Your task to perform on an android device: check google app version Image 0: 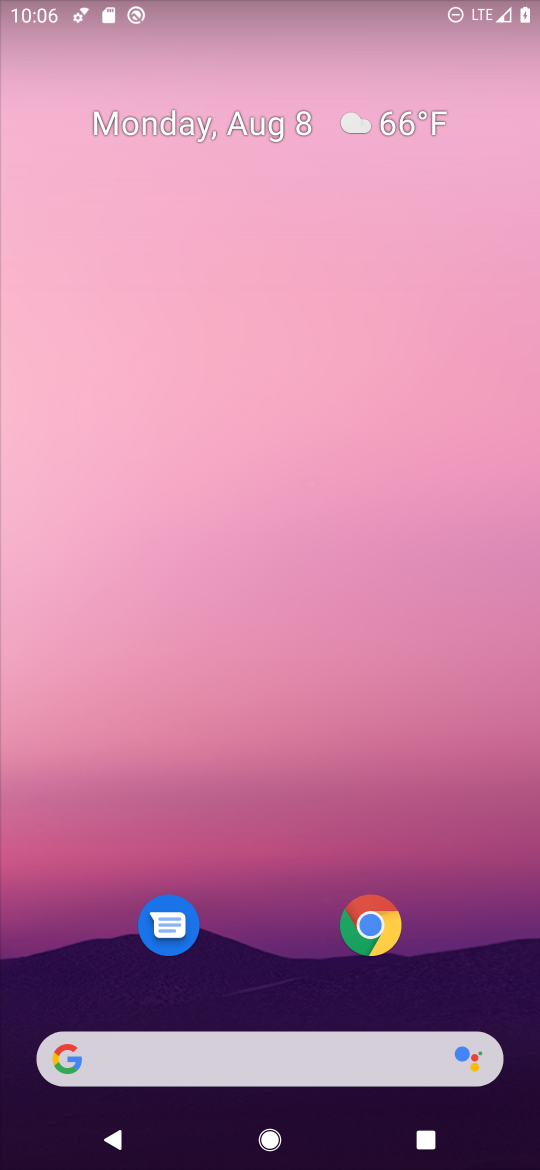
Step 0: drag from (264, 949) to (353, 116)
Your task to perform on an android device: check google app version Image 1: 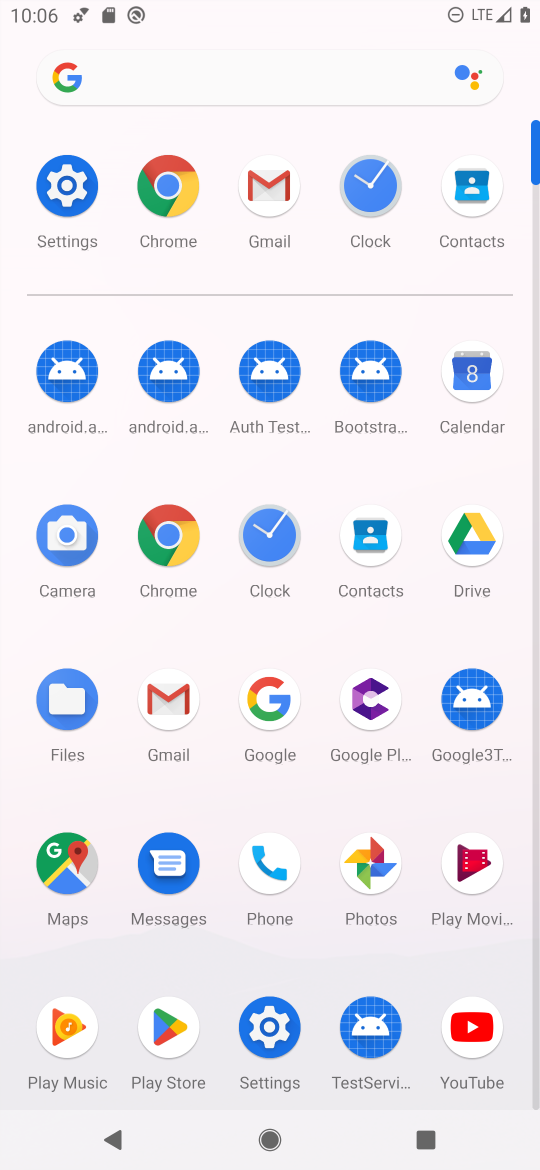
Step 1: click (271, 700)
Your task to perform on an android device: check google app version Image 2: 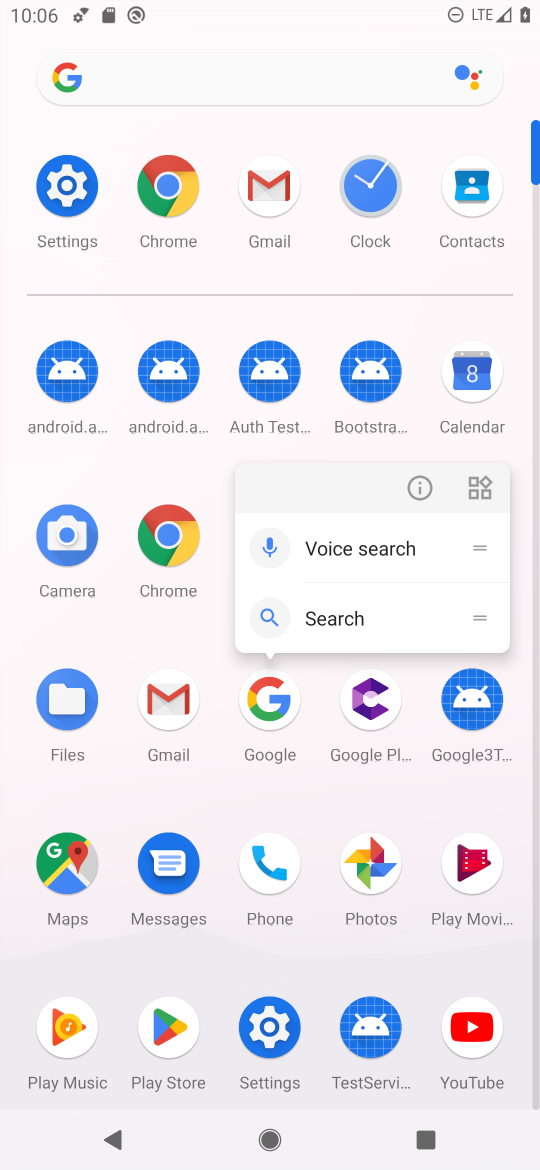
Step 2: click (405, 476)
Your task to perform on an android device: check google app version Image 3: 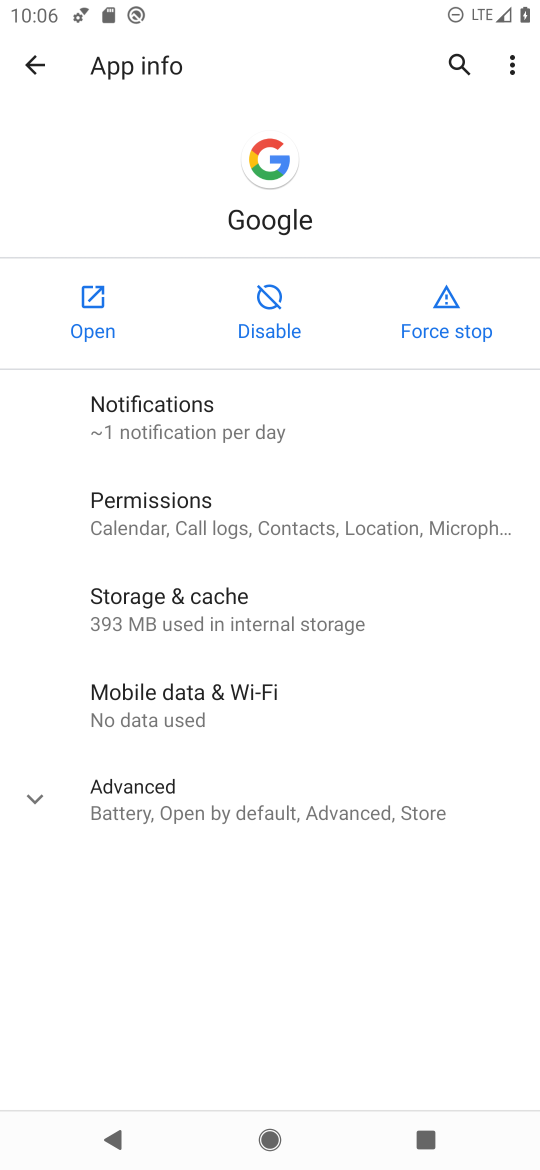
Step 3: click (233, 799)
Your task to perform on an android device: check google app version Image 4: 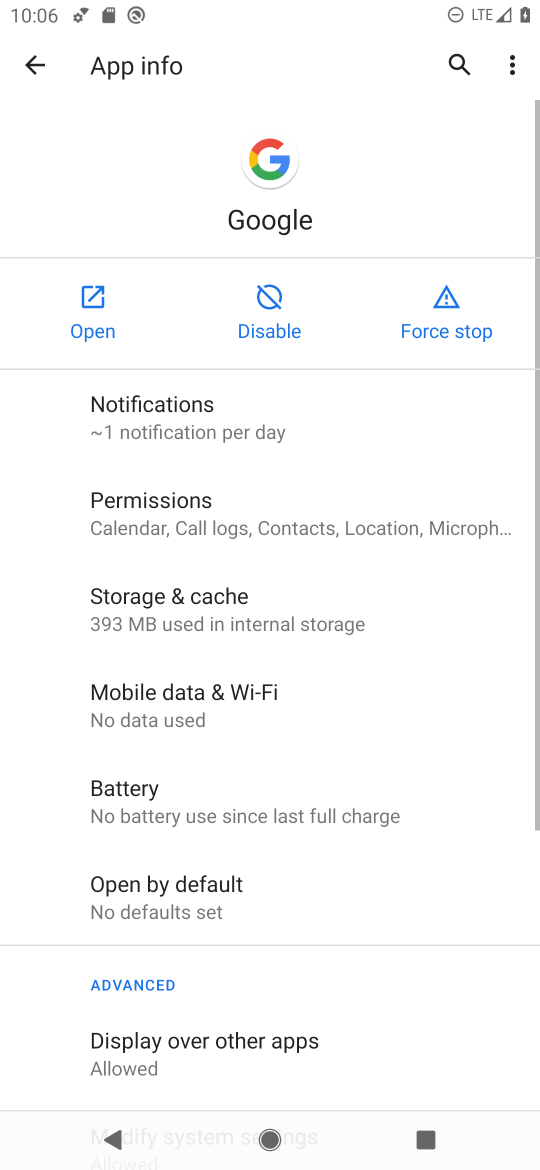
Step 4: task complete